Your task to perform on an android device: allow notifications from all sites in the chrome app Image 0: 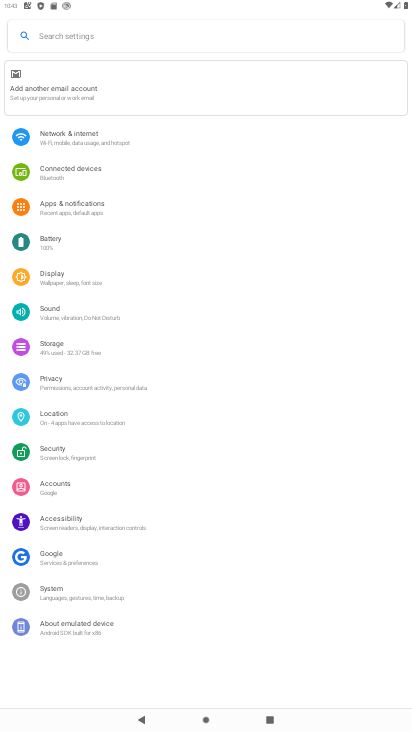
Step 0: press home button
Your task to perform on an android device: allow notifications from all sites in the chrome app Image 1: 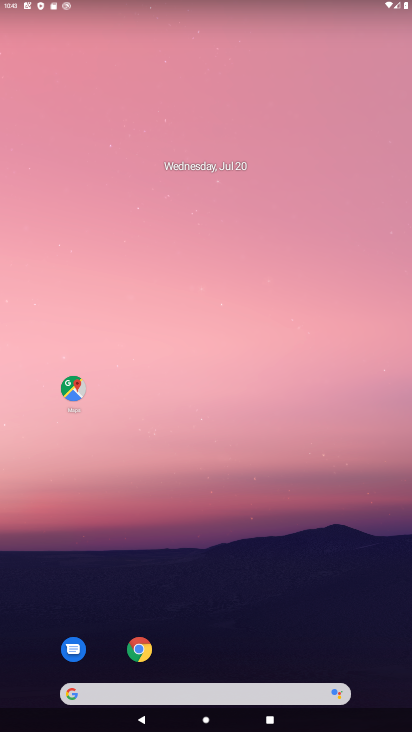
Step 1: click (141, 640)
Your task to perform on an android device: allow notifications from all sites in the chrome app Image 2: 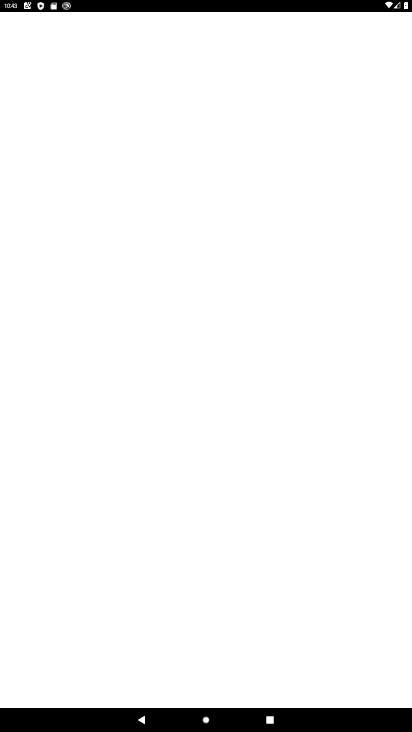
Step 2: task complete